Your task to perform on an android device: Go to Yahoo.com Image 0: 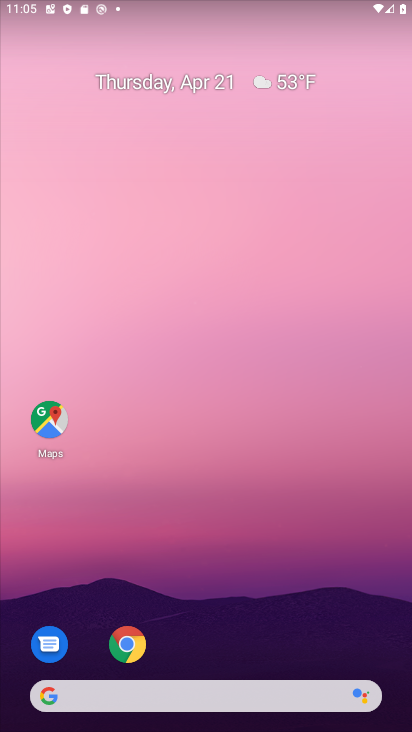
Step 0: click (137, 645)
Your task to perform on an android device: Go to Yahoo.com Image 1: 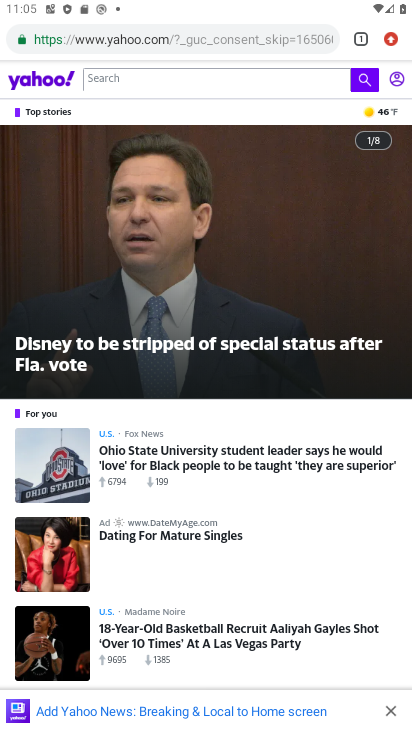
Step 1: task complete